Your task to perform on an android device: Do I have any events this weekend? Image 0: 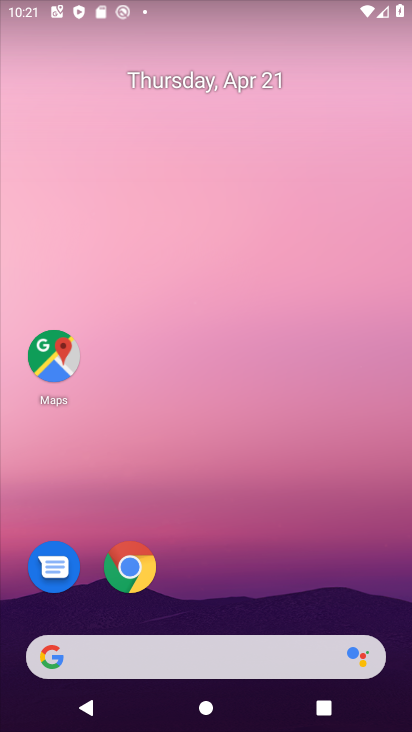
Step 0: drag from (224, 606) to (340, 12)
Your task to perform on an android device: Do I have any events this weekend? Image 1: 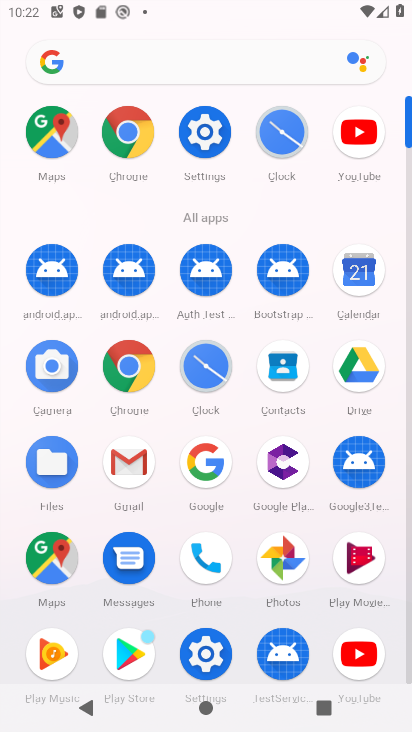
Step 1: click (375, 266)
Your task to perform on an android device: Do I have any events this weekend? Image 2: 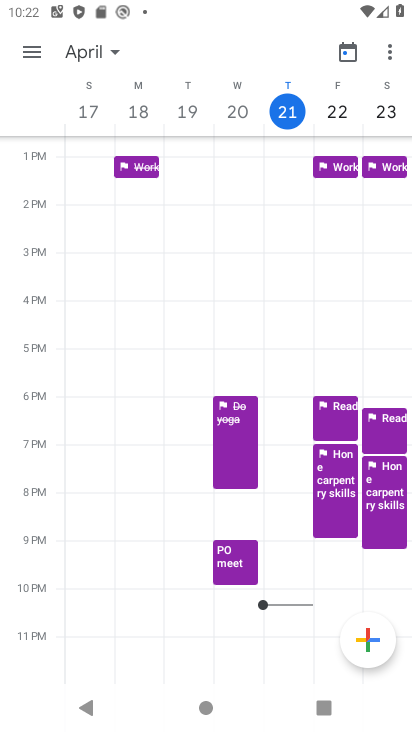
Step 2: click (30, 38)
Your task to perform on an android device: Do I have any events this weekend? Image 3: 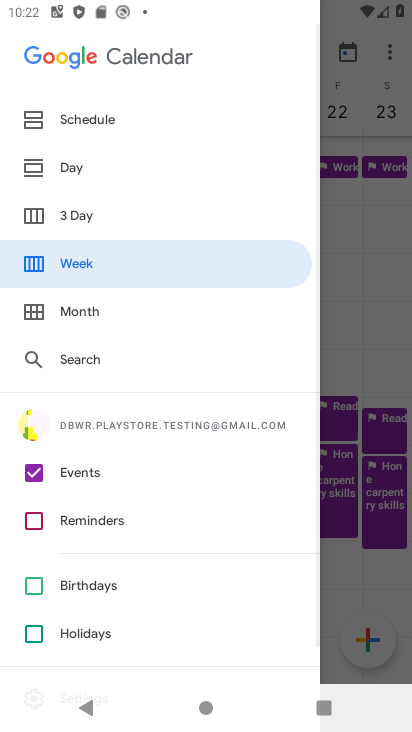
Step 3: drag from (120, 443) to (156, 316)
Your task to perform on an android device: Do I have any events this weekend? Image 4: 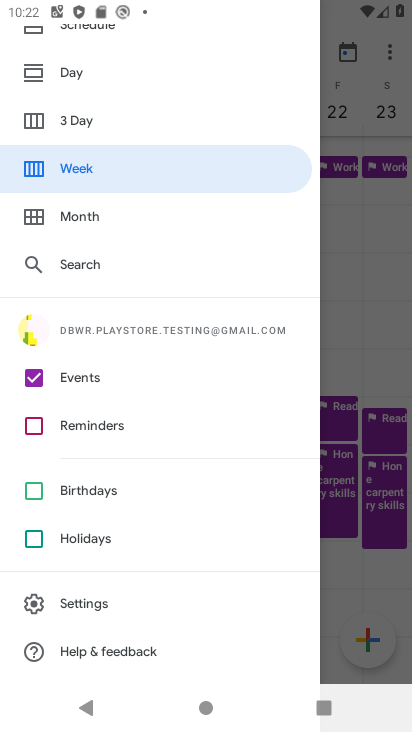
Step 4: click (96, 181)
Your task to perform on an android device: Do I have any events this weekend? Image 5: 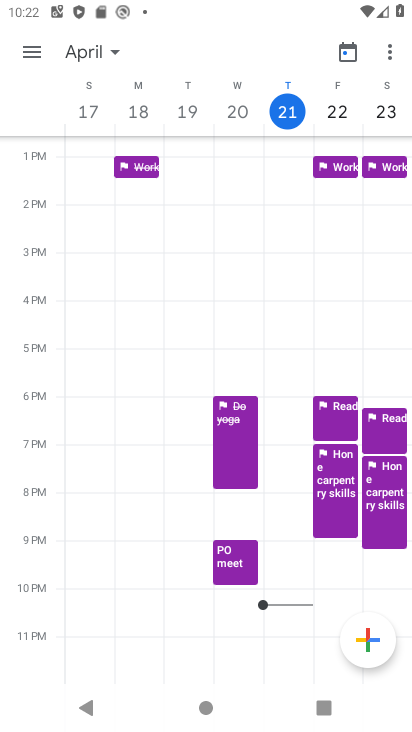
Step 5: task complete